Your task to perform on an android device: toggle notification dots Image 0: 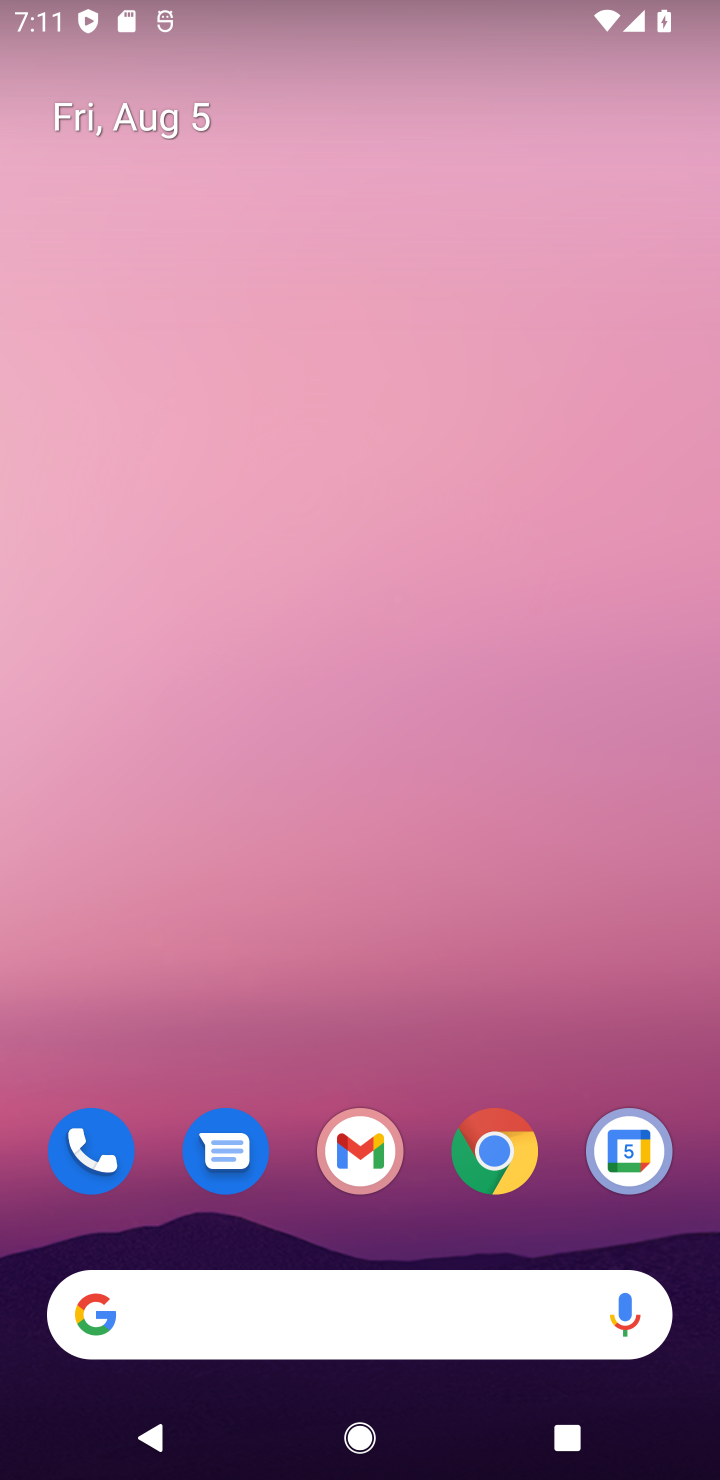
Step 0: drag from (306, 1256) to (301, 241)
Your task to perform on an android device: toggle notification dots Image 1: 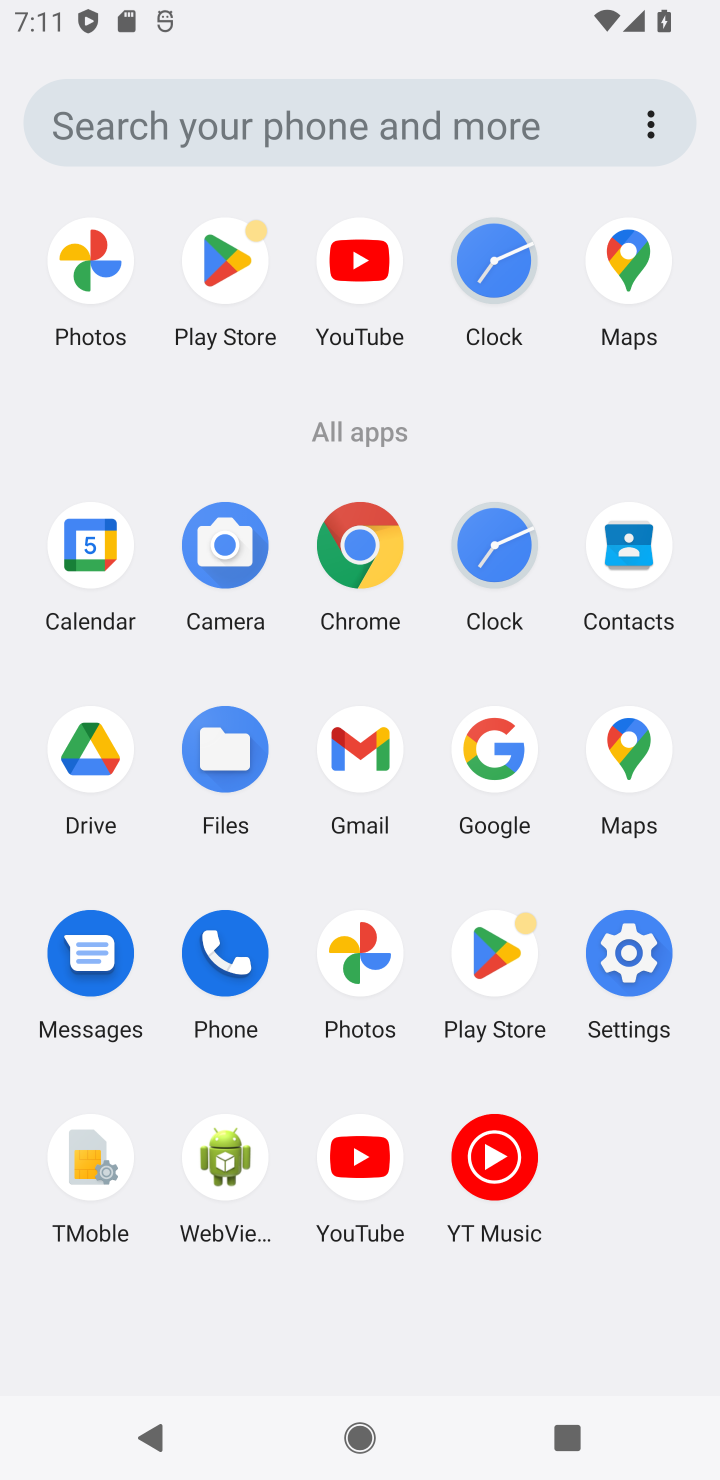
Step 1: click (614, 963)
Your task to perform on an android device: toggle notification dots Image 2: 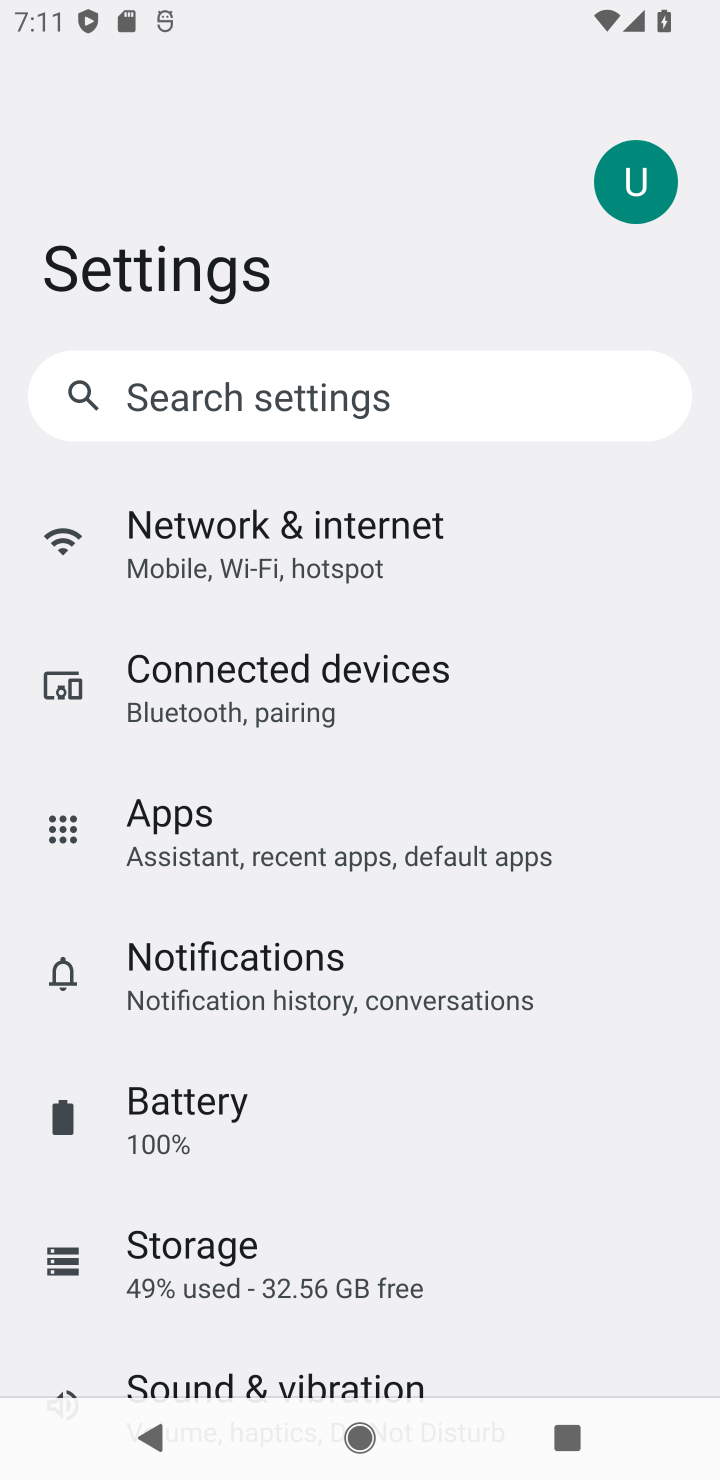
Step 2: click (298, 967)
Your task to perform on an android device: toggle notification dots Image 3: 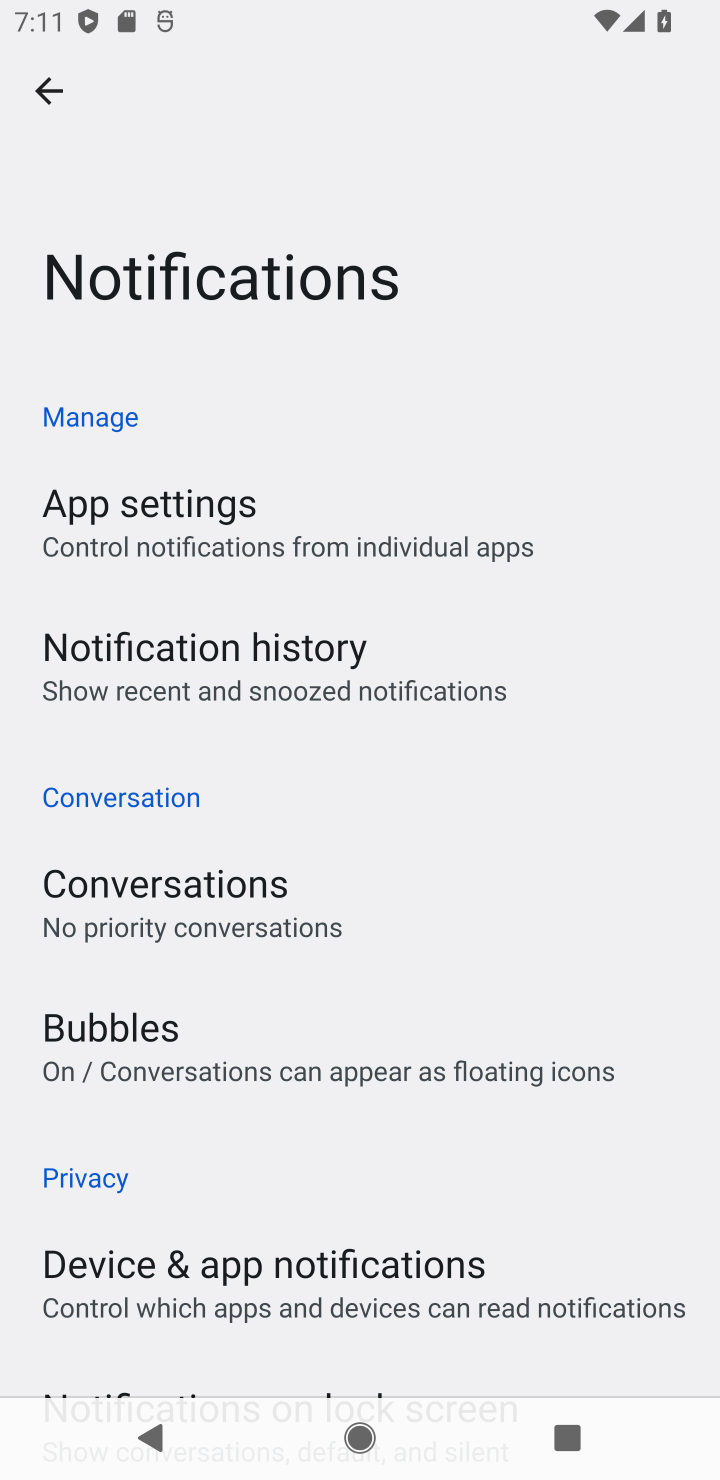
Step 3: drag from (255, 1340) to (125, 384)
Your task to perform on an android device: toggle notification dots Image 4: 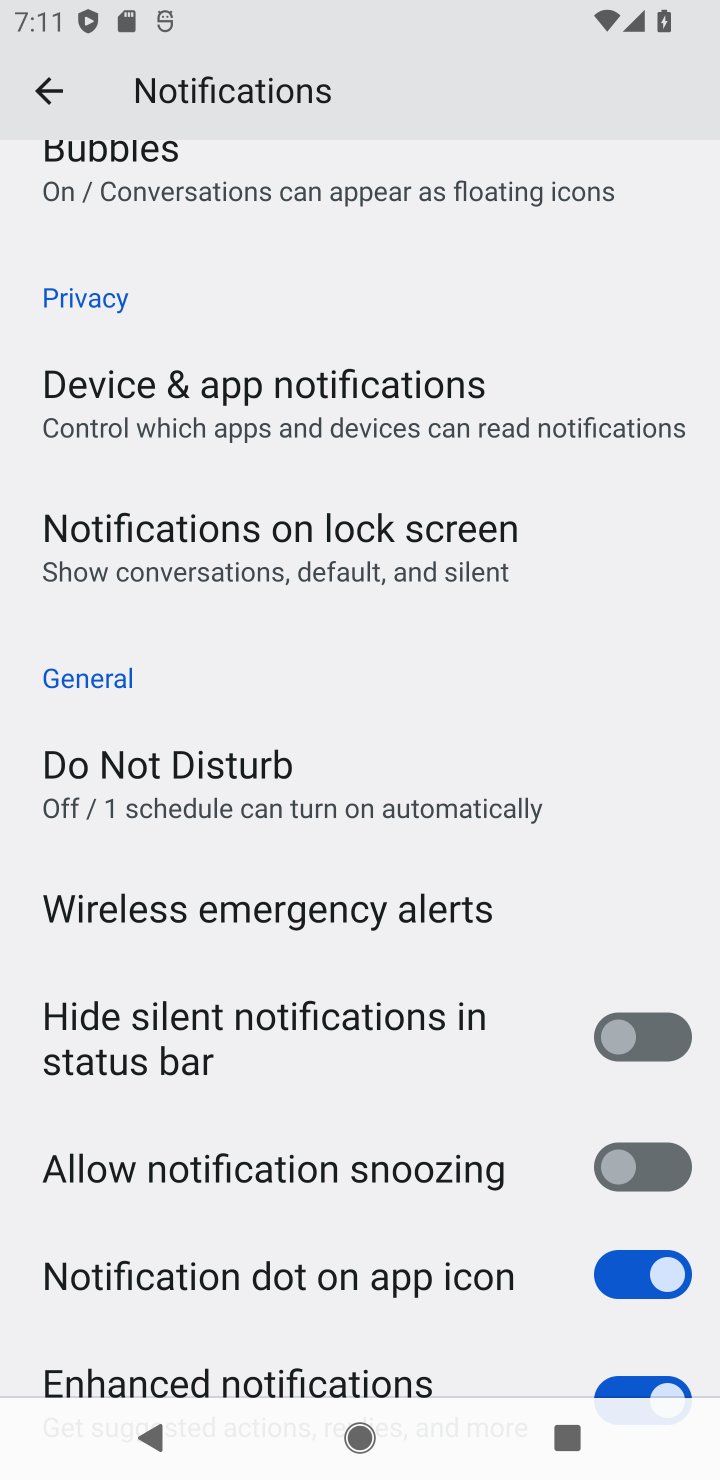
Step 4: click (622, 1279)
Your task to perform on an android device: toggle notification dots Image 5: 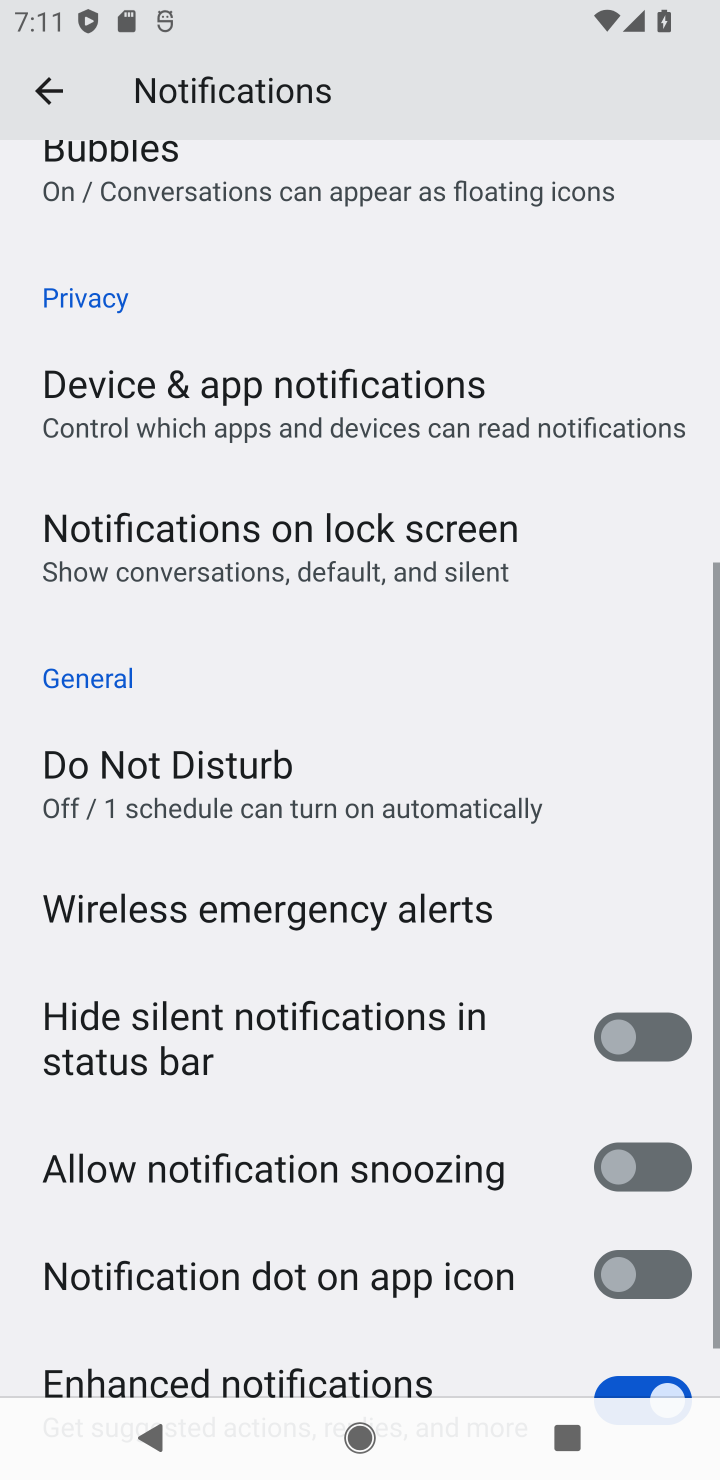
Step 5: task complete